Your task to perform on an android device: What's on my calendar today? Image 0: 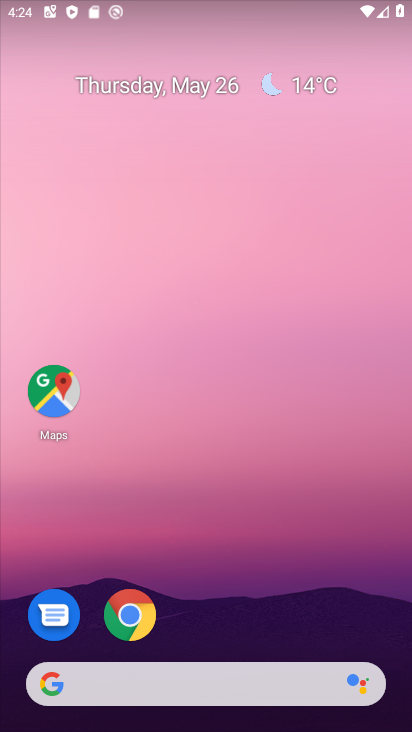
Step 0: drag from (302, 554) to (230, 73)
Your task to perform on an android device: What's on my calendar today? Image 1: 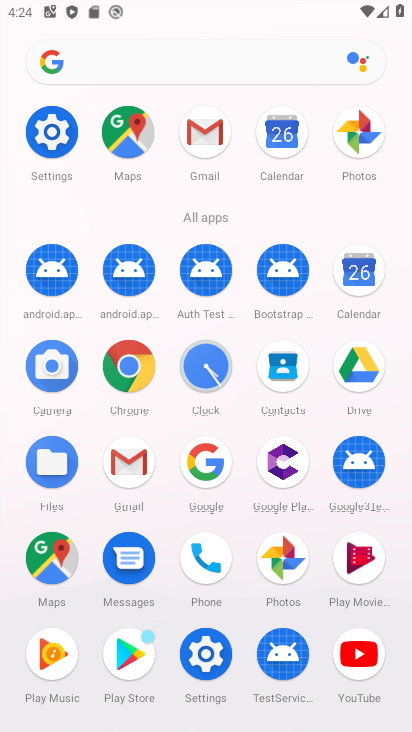
Step 1: click (279, 137)
Your task to perform on an android device: What's on my calendar today? Image 2: 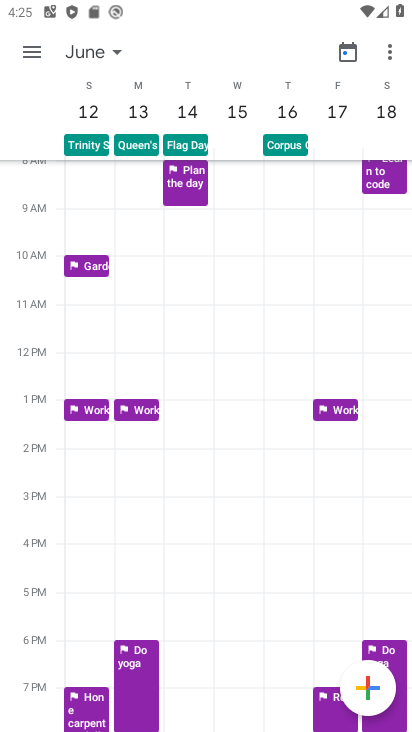
Step 2: click (85, 59)
Your task to perform on an android device: What's on my calendar today? Image 3: 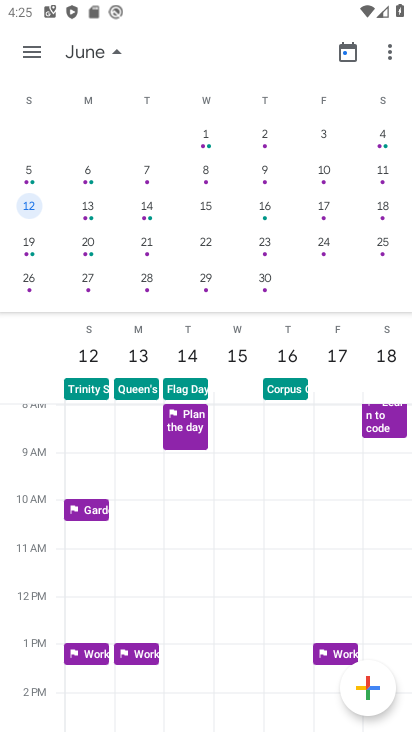
Step 3: drag from (42, 220) to (402, 207)
Your task to perform on an android device: What's on my calendar today? Image 4: 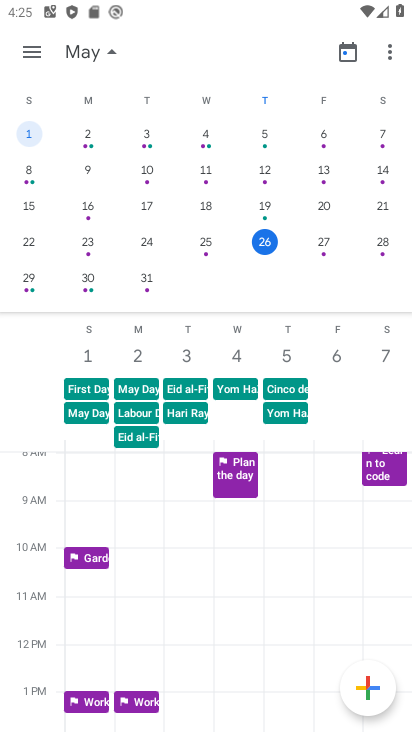
Step 4: click (260, 242)
Your task to perform on an android device: What's on my calendar today? Image 5: 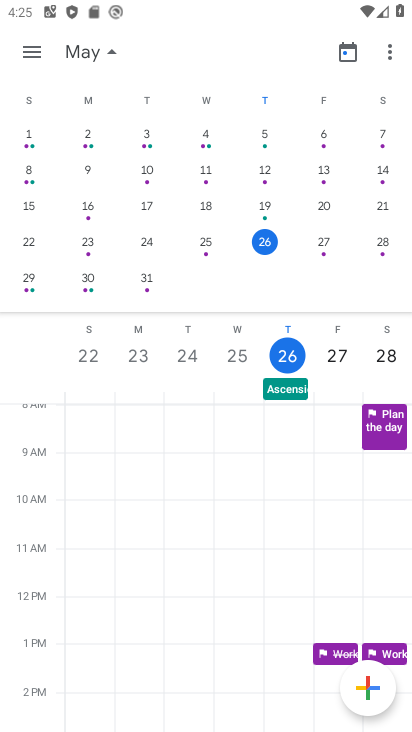
Step 5: task complete